Your task to perform on an android device: Search for seafood restaurants on Google Maps Image 0: 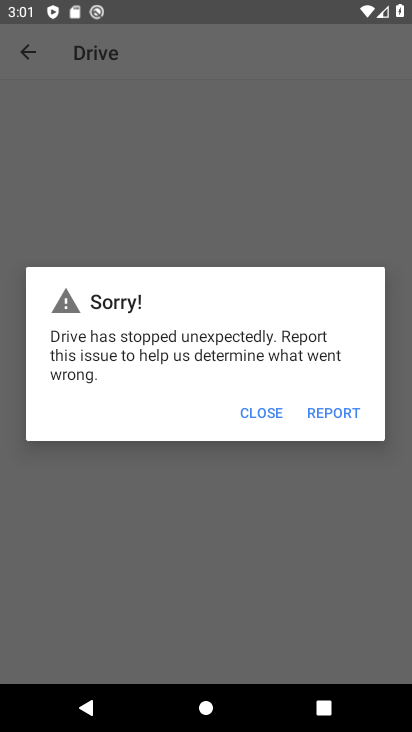
Step 0: press home button
Your task to perform on an android device: Search for seafood restaurants on Google Maps Image 1: 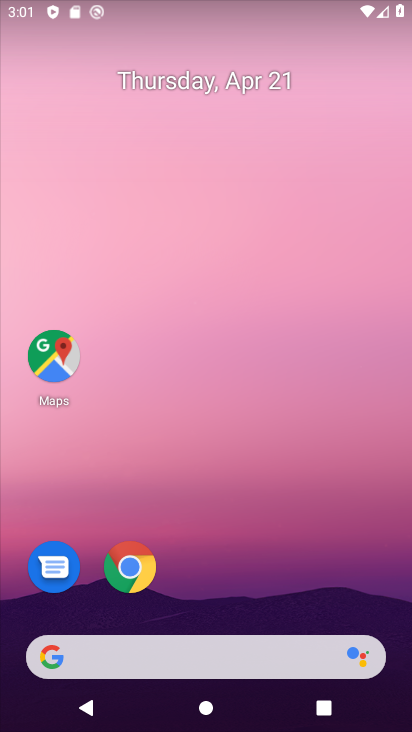
Step 1: click (53, 365)
Your task to perform on an android device: Search for seafood restaurants on Google Maps Image 2: 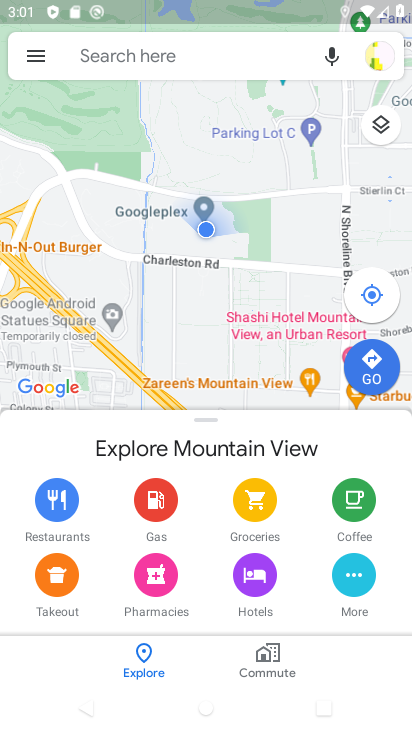
Step 2: click (166, 62)
Your task to perform on an android device: Search for seafood restaurants on Google Maps Image 3: 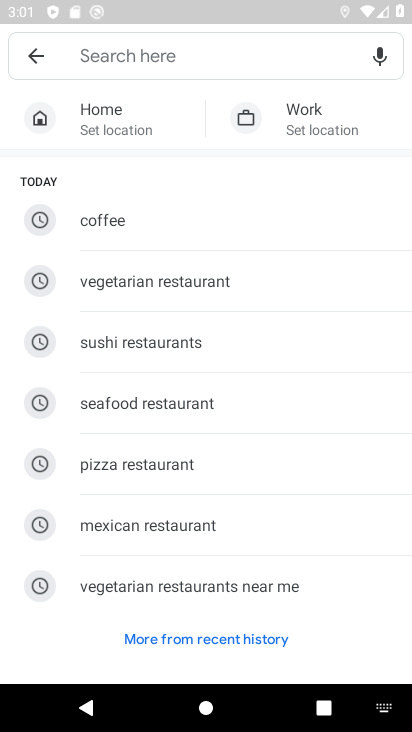
Step 3: click (170, 410)
Your task to perform on an android device: Search for seafood restaurants on Google Maps Image 4: 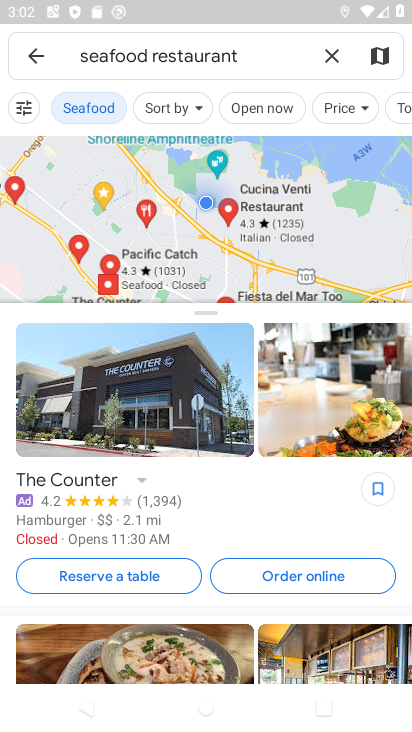
Step 4: task complete